Your task to perform on an android device: Check the weather Image 0: 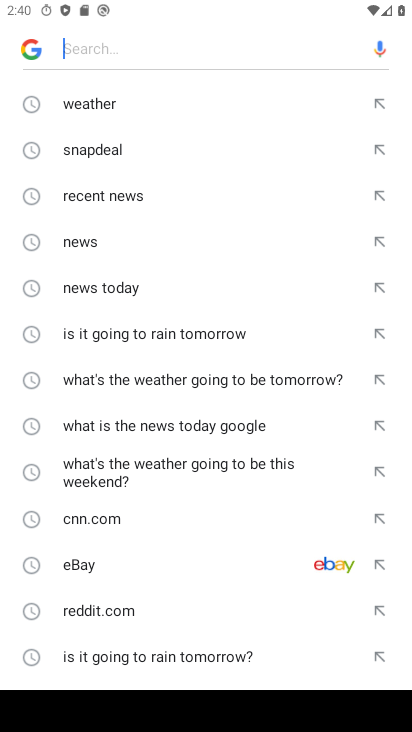
Step 0: click (88, 95)
Your task to perform on an android device: Check the weather Image 1: 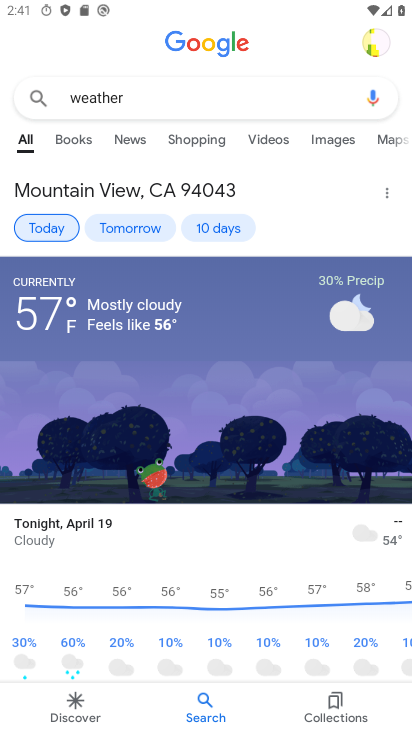
Step 1: task complete